Your task to perform on an android device: What's the weather? Image 0: 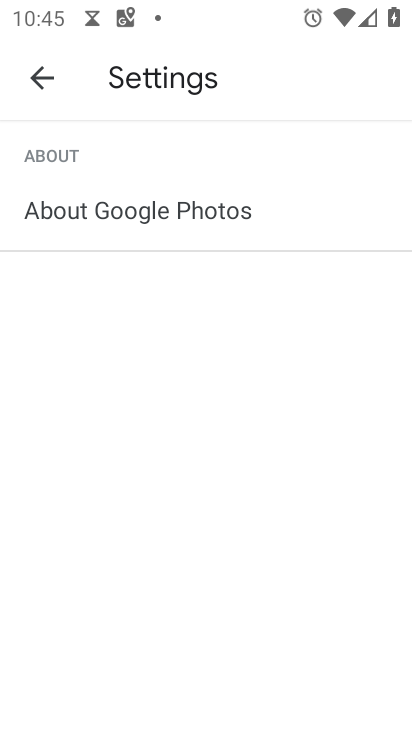
Step 0: click (47, 81)
Your task to perform on an android device: What's the weather? Image 1: 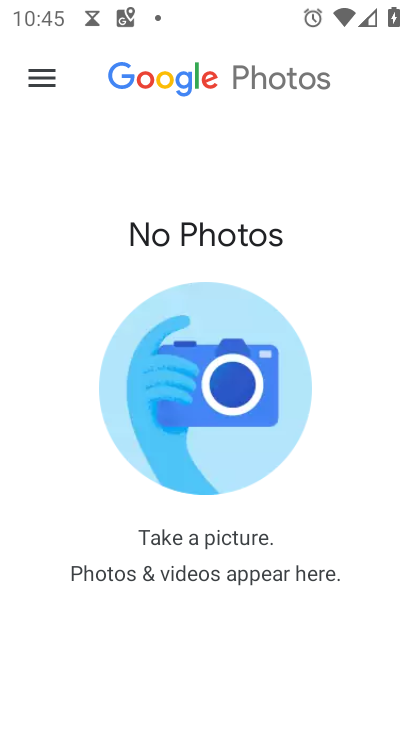
Step 1: press home button
Your task to perform on an android device: What's the weather? Image 2: 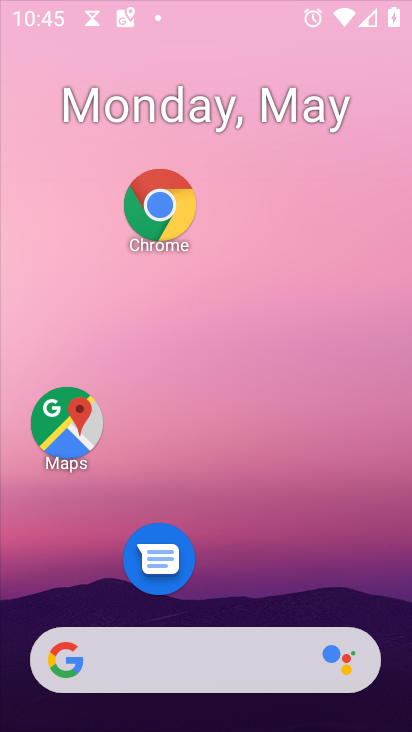
Step 2: press home button
Your task to perform on an android device: What's the weather? Image 3: 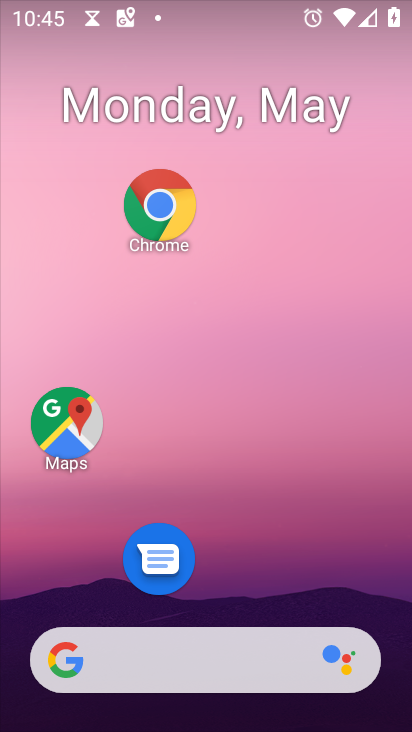
Step 3: drag from (12, 184) to (407, 293)
Your task to perform on an android device: What's the weather? Image 4: 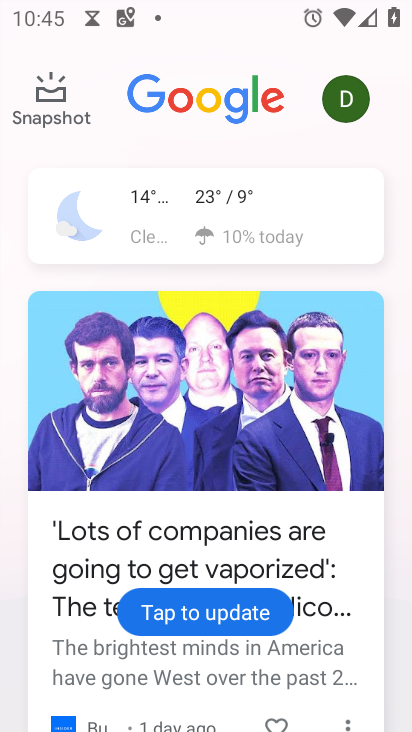
Step 4: click (143, 215)
Your task to perform on an android device: What's the weather? Image 5: 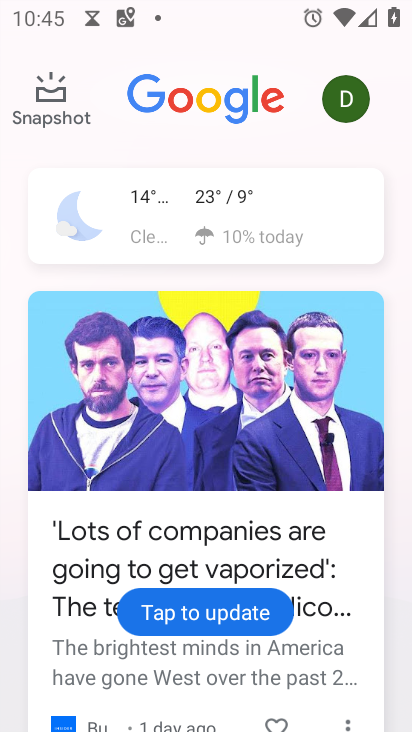
Step 5: click (143, 215)
Your task to perform on an android device: What's the weather? Image 6: 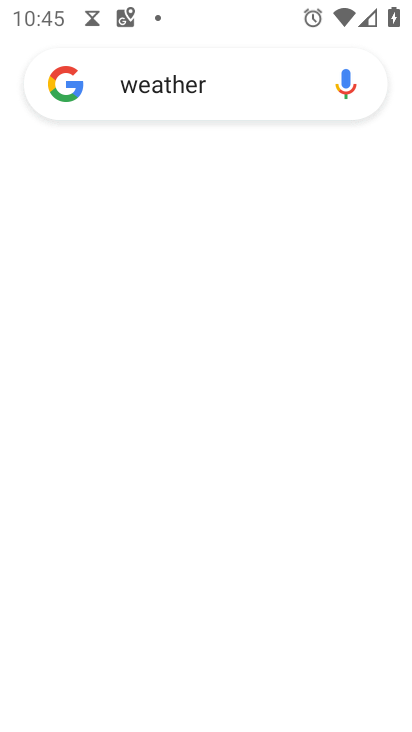
Step 6: click (144, 216)
Your task to perform on an android device: What's the weather? Image 7: 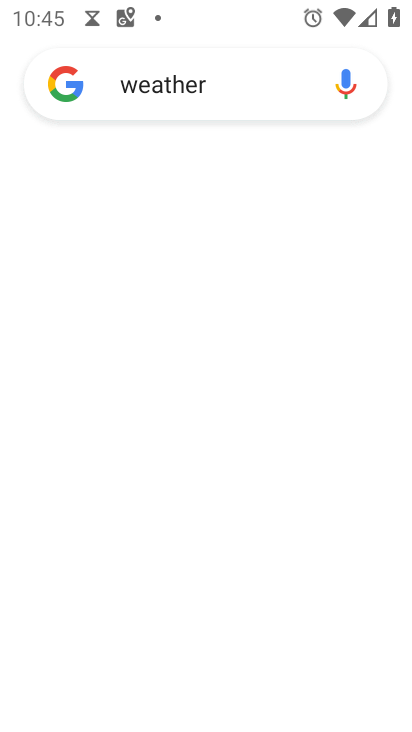
Step 7: click (144, 216)
Your task to perform on an android device: What's the weather? Image 8: 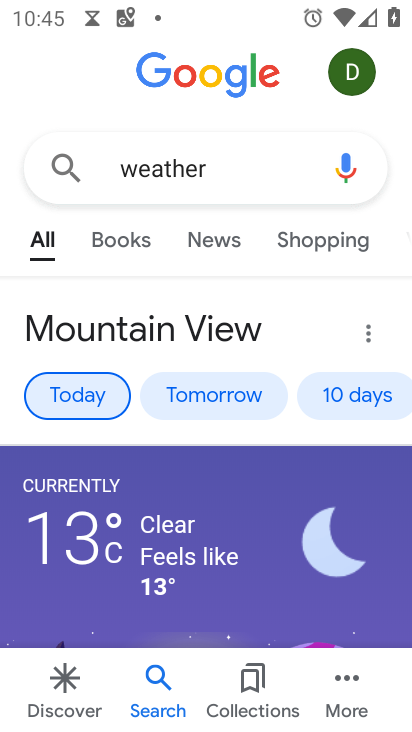
Step 8: task complete